Your task to perform on an android device: empty trash in the gmail app Image 0: 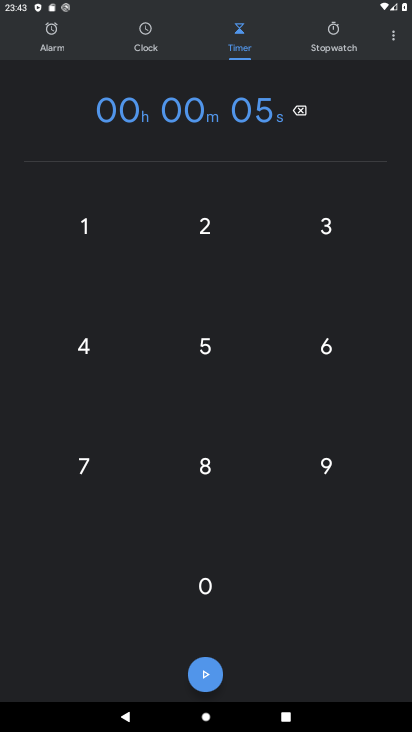
Step 0: press home button
Your task to perform on an android device: empty trash in the gmail app Image 1: 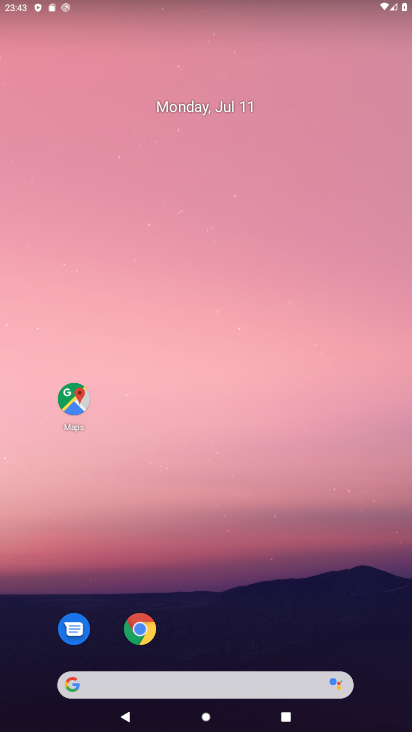
Step 1: drag from (311, 610) to (348, 46)
Your task to perform on an android device: empty trash in the gmail app Image 2: 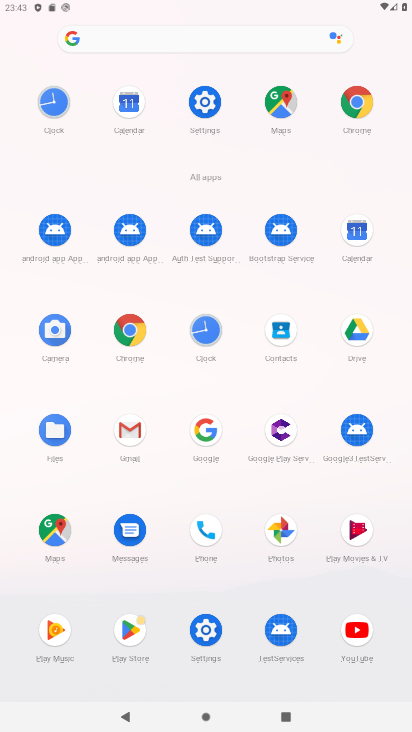
Step 2: click (125, 433)
Your task to perform on an android device: empty trash in the gmail app Image 3: 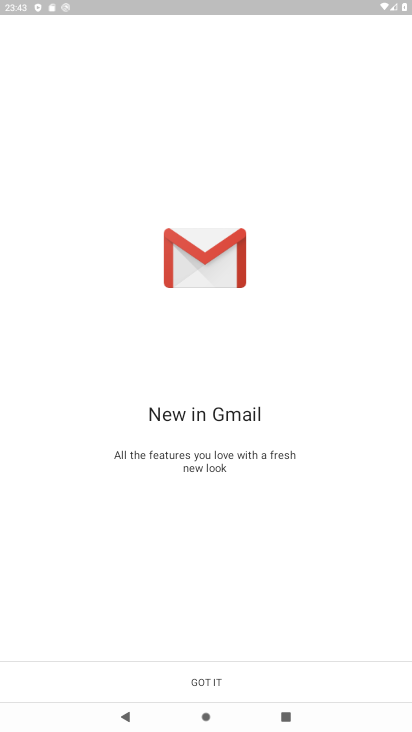
Step 3: click (212, 679)
Your task to perform on an android device: empty trash in the gmail app Image 4: 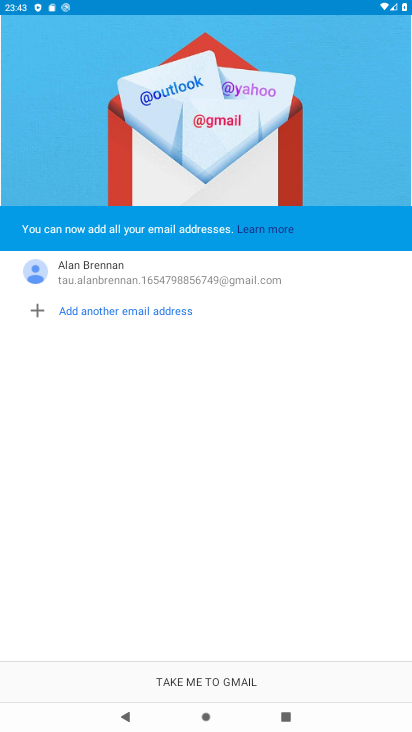
Step 4: click (237, 682)
Your task to perform on an android device: empty trash in the gmail app Image 5: 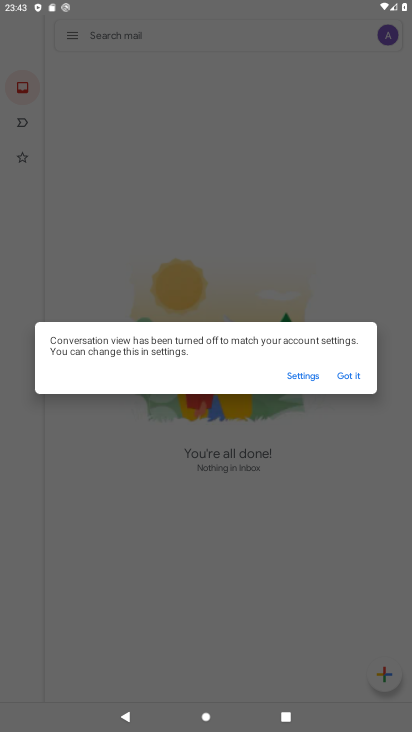
Step 5: click (339, 374)
Your task to perform on an android device: empty trash in the gmail app Image 6: 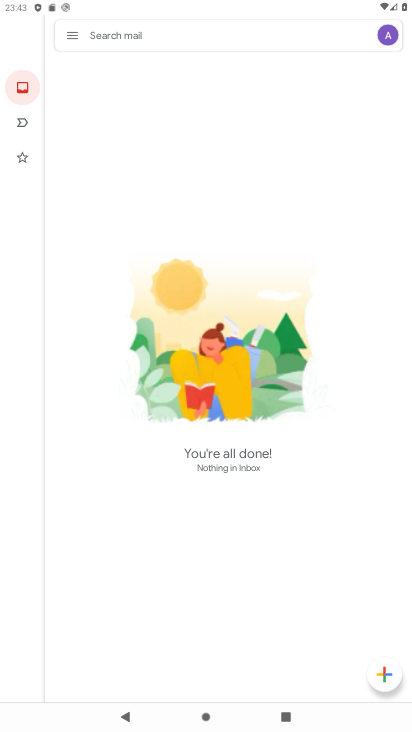
Step 6: click (65, 28)
Your task to perform on an android device: empty trash in the gmail app Image 7: 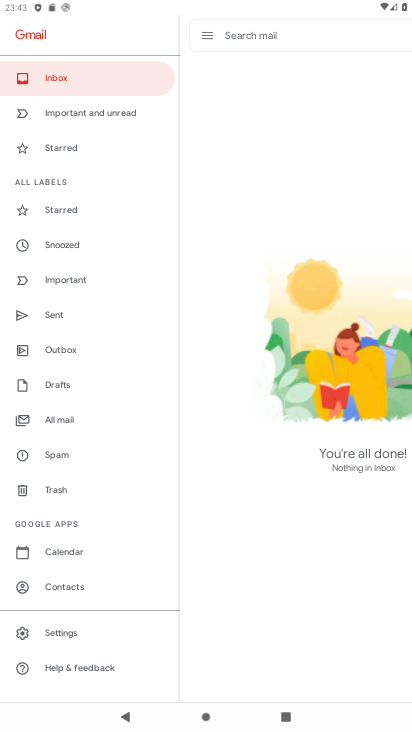
Step 7: click (73, 492)
Your task to perform on an android device: empty trash in the gmail app Image 8: 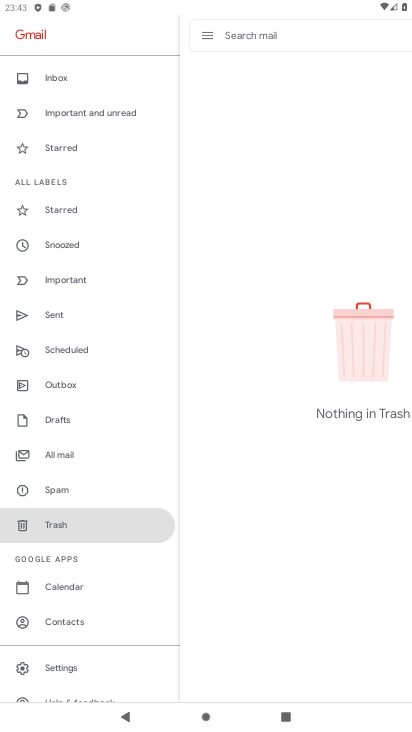
Step 8: task complete